Your task to perform on an android device: empty trash in google photos Image 0: 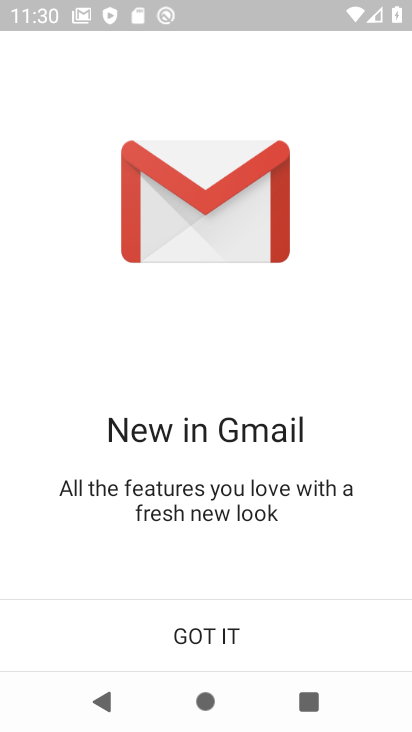
Step 0: press home button
Your task to perform on an android device: empty trash in google photos Image 1: 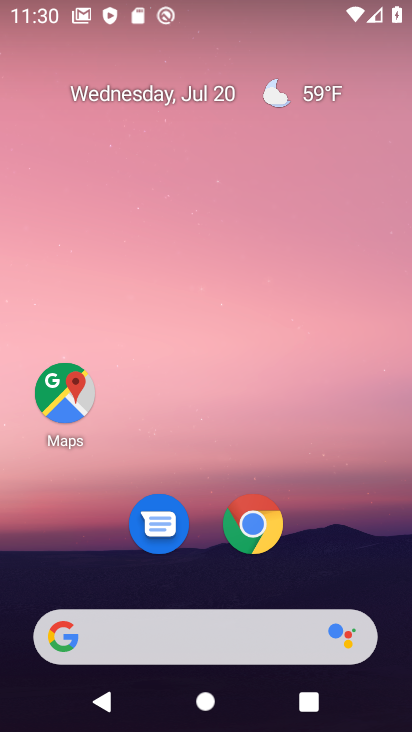
Step 1: drag from (120, 637) to (240, 99)
Your task to perform on an android device: empty trash in google photos Image 2: 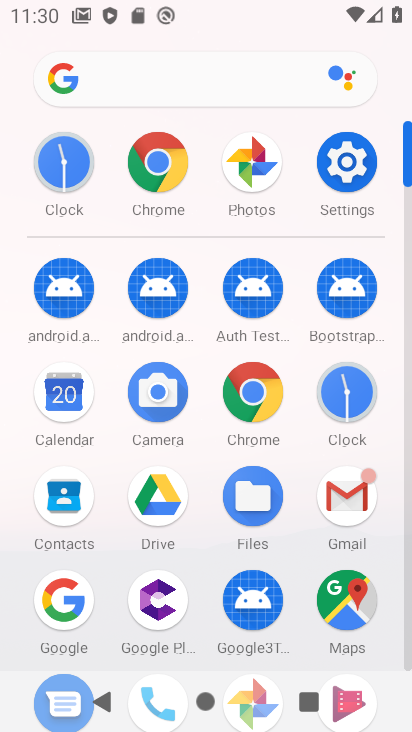
Step 2: drag from (222, 504) to (228, 143)
Your task to perform on an android device: empty trash in google photos Image 3: 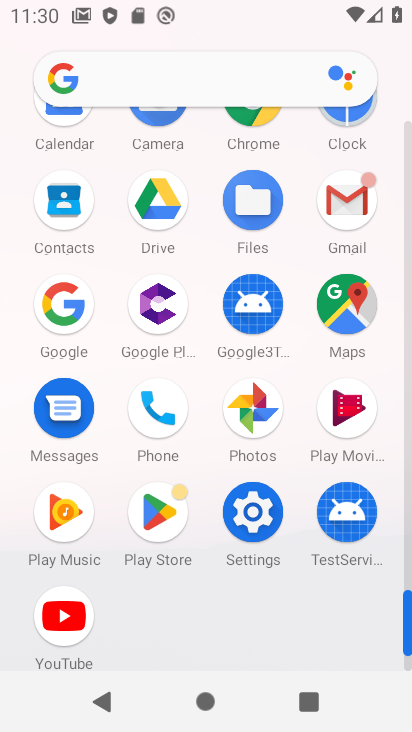
Step 3: click (251, 414)
Your task to perform on an android device: empty trash in google photos Image 4: 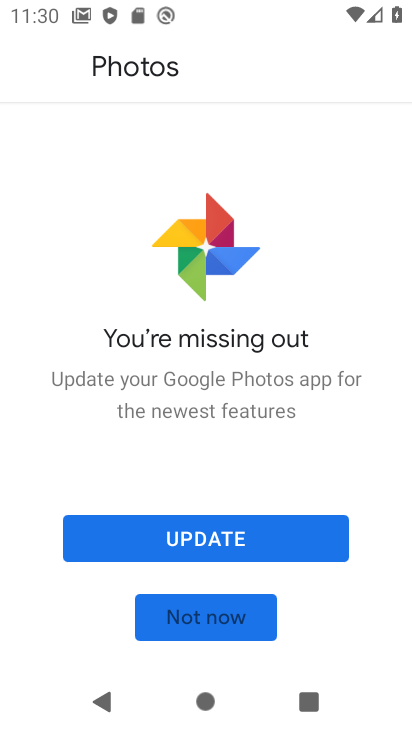
Step 4: click (208, 617)
Your task to perform on an android device: empty trash in google photos Image 5: 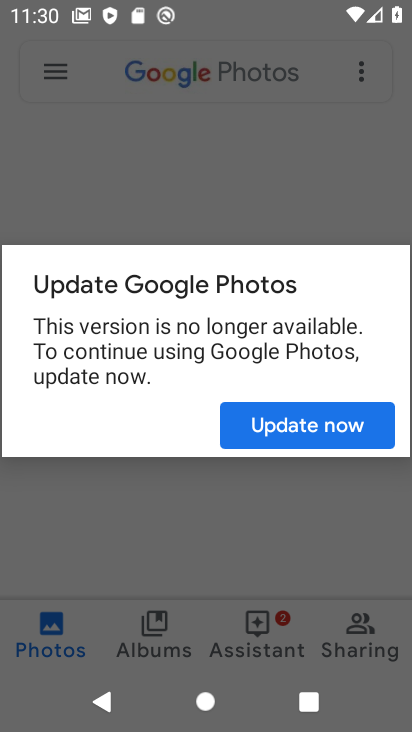
Step 5: click (306, 426)
Your task to perform on an android device: empty trash in google photos Image 6: 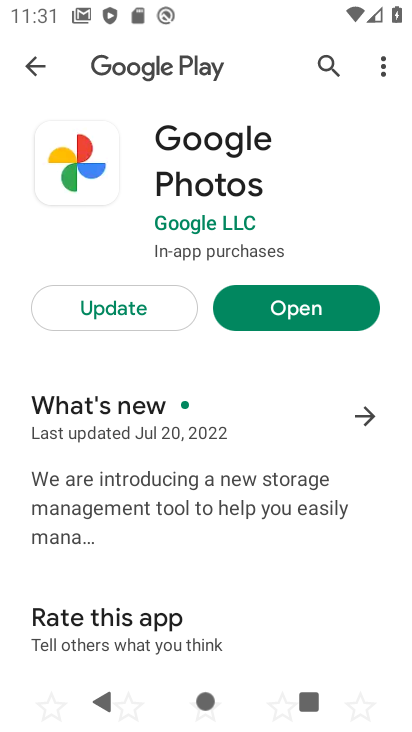
Step 6: click (309, 313)
Your task to perform on an android device: empty trash in google photos Image 7: 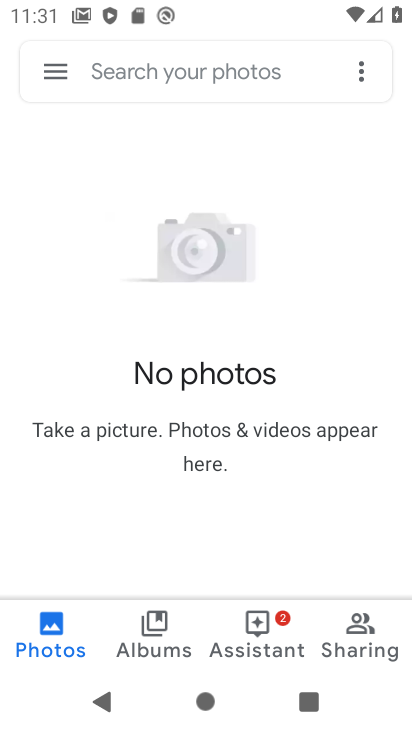
Step 7: click (61, 75)
Your task to perform on an android device: empty trash in google photos Image 8: 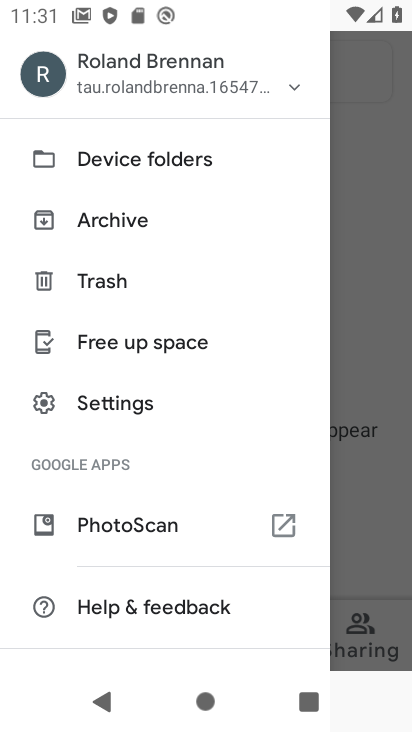
Step 8: click (94, 282)
Your task to perform on an android device: empty trash in google photos Image 9: 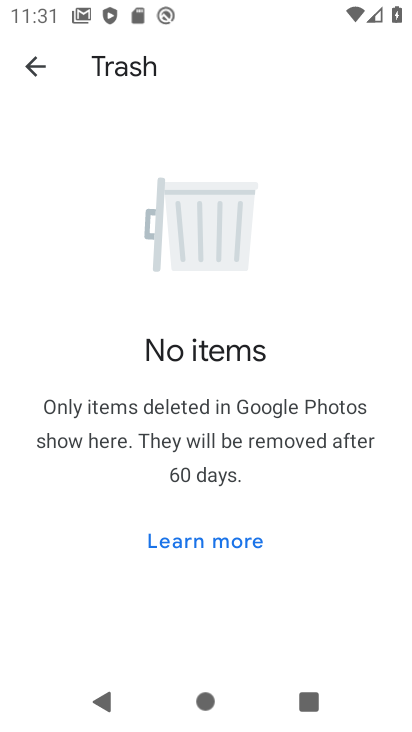
Step 9: task complete